Your task to perform on an android device: Go to Maps Image 0: 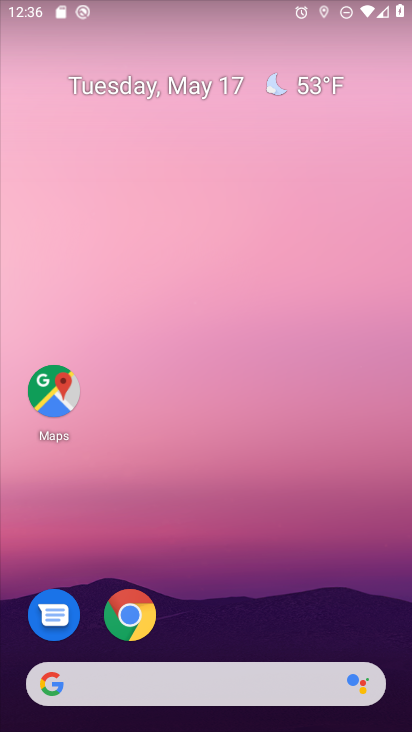
Step 0: click (54, 393)
Your task to perform on an android device: Go to Maps Image 1: 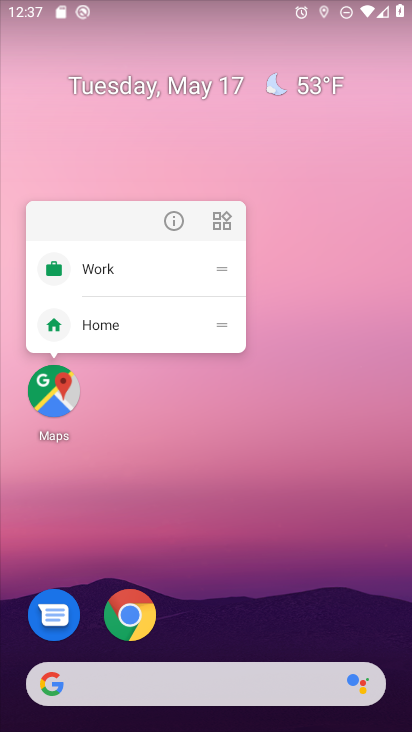
Step 1: click (57, 391)
Your task to perform on an android device: Go to Maps Image 2: 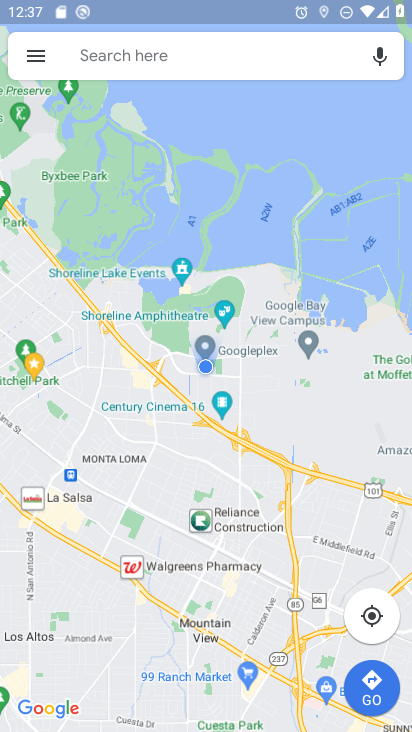
Step 2: task complete